Your task to perform on an android device: Open sound settings Image 0: 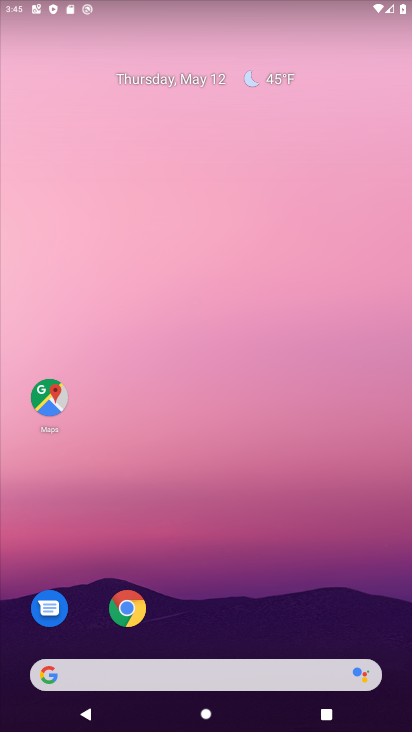
Step 0: drag from (180, 619) to (377, 127)
Your task to perform on an android device: Open sound settings Image 1: 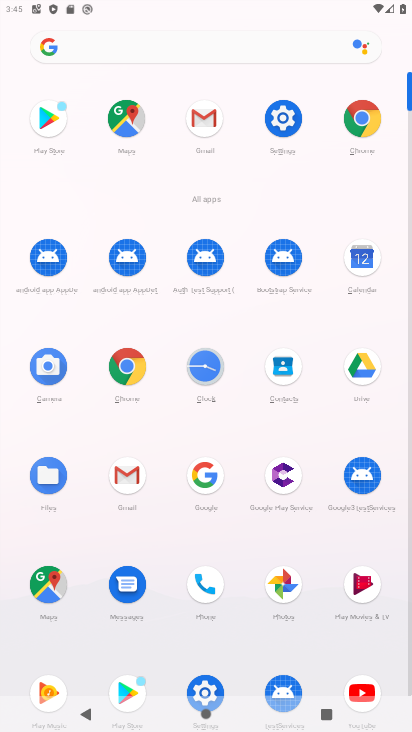
Step 1: click (294, 177)
Your task to perform on an android device: Open sound settings Image 2: 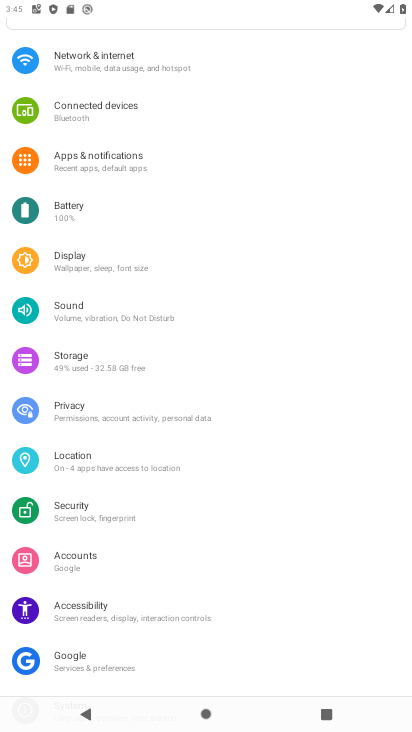
Step 2: click (154, 295)
Your task to perform on an android device: Open sound settings Image 3: 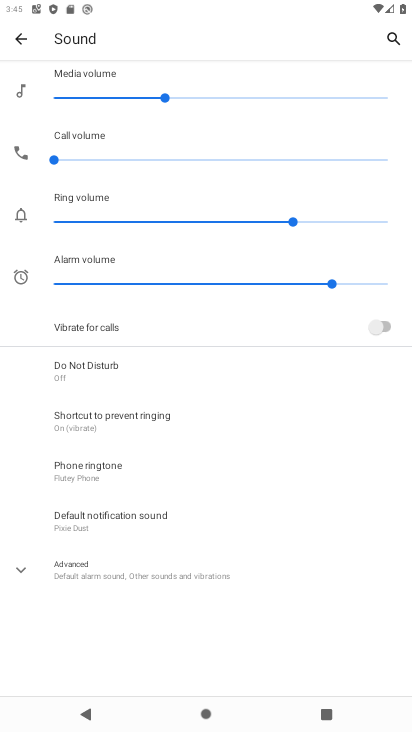
Step 3: task complete